Your task to perform on an android device: Search for a new blush on Sephora Image 0: 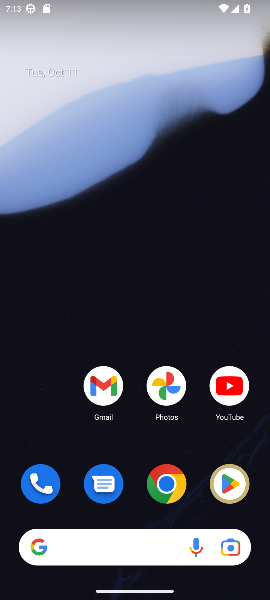
Step 0: click (168, 483)
Your task to perform on an android device: Search for a new blush on Sephora Image 1: 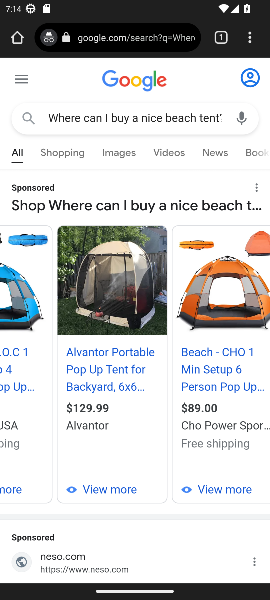
Step 1: click (151, 37)
Your task to perform on an android device: Search for a new blush on Sephora Image 2: 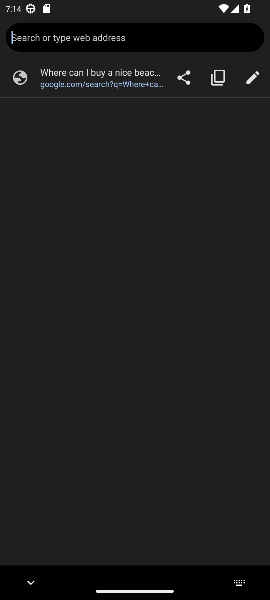
Step 2: type "Sephora"
Your task to perform on an android device: Search for a new blush on Sephora Image 3: 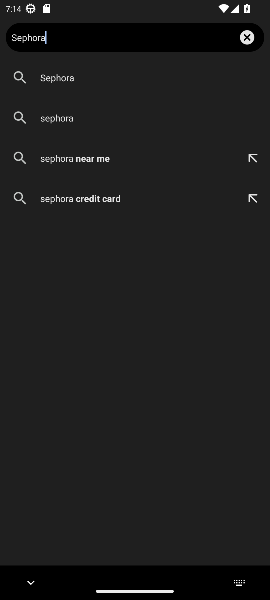
Step 3: click (68, 82)
Your task to perform on an android device: Search for a new blush on Sephora Image 4: 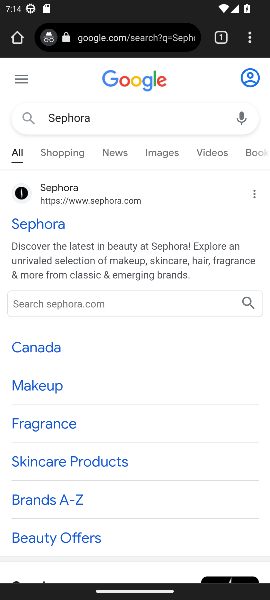
Step 4: click (53, 222)
Your task to perform on an android device: Search for a new blush on Sephora Image 5: 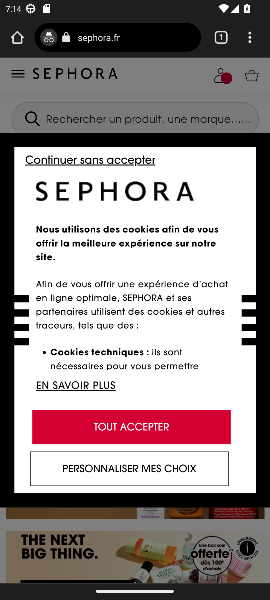
Step 5: click (129, 426)
Your task to perform on an android device: Search for a new blush on Sephora Image 6: 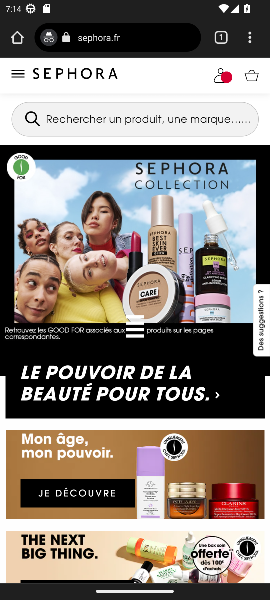
Step 6: click (130, 117)
Your task to perform on an android device: Search for a new blush on Sephora Image 7: 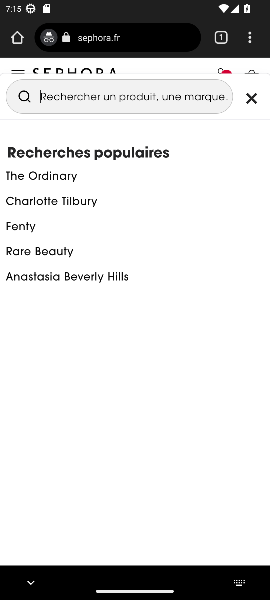
Step 7: type "new blush"
Your task to perform on an android device: Search for a new blush on Sephora Image 8: 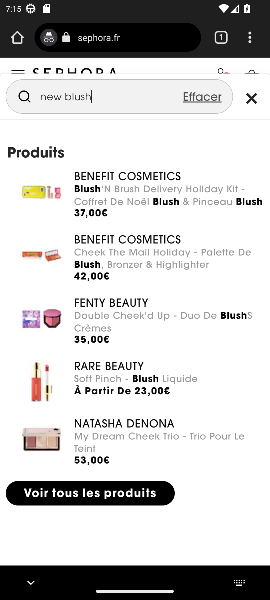
Step 8: task complete